Your task to perform on an android device: refresh tabs in the chrome app Image 0: 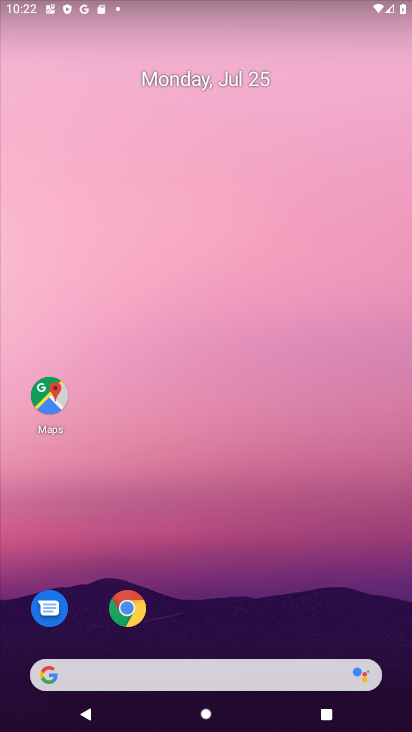
Step 0: drag from (195, 324) to (208, 180)
Your task to perform on an android device: refresh tabs in the chrome app Image 1: 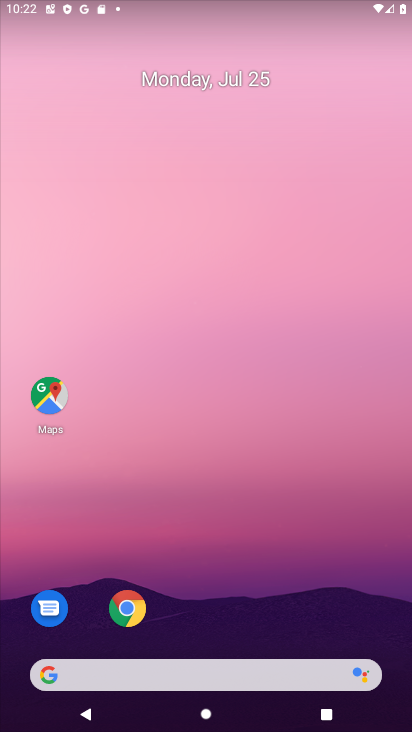
Step 1: drag from (213, 420) to (231, 16)
Your task to perform on an android device: refresh tabs in the chrome app Image 2: 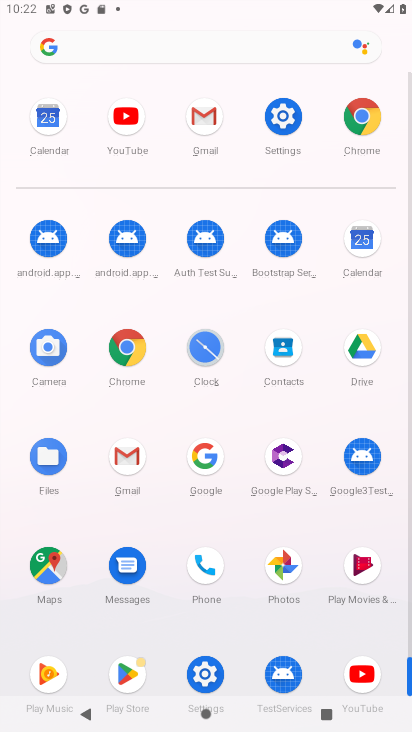
Step 2: click (373, 126)
Your task to perform on an android device: refresh tabs in the chrome app Image 3: 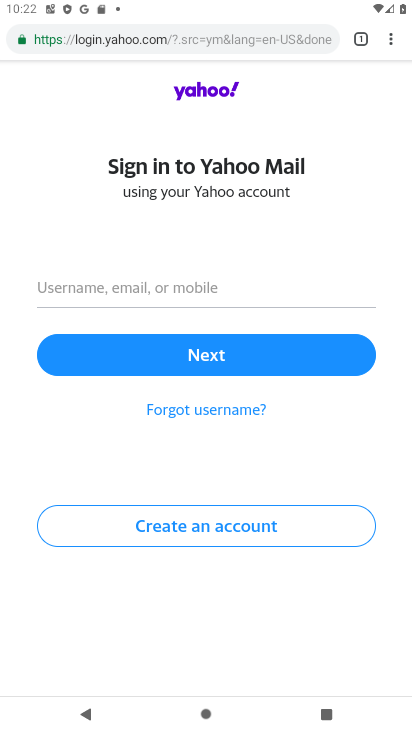
Step 3: click (388, 42)
Your task to perform on an android device: refresh tabs in the chrome app Image 4: 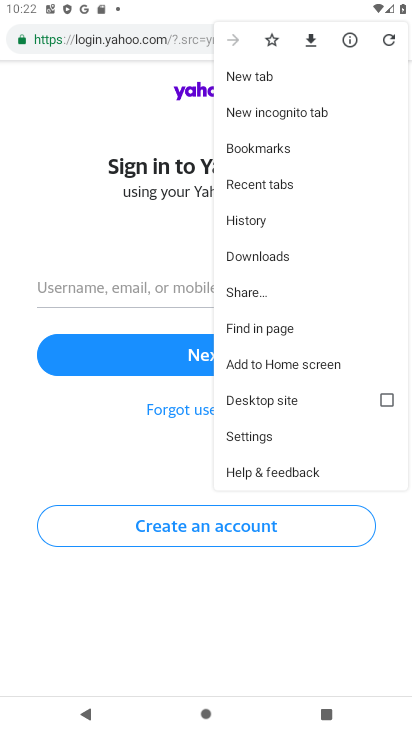
Step 4: click (391, 44)
Your task to perform on an android device: refresh tabs in the chrome app Image 5: 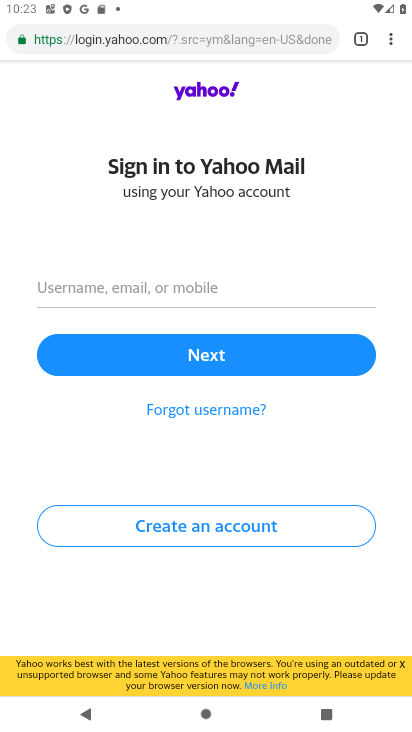
Step 5: task complete